Your task to perform on an android device: change alarm snooze length Image 0: 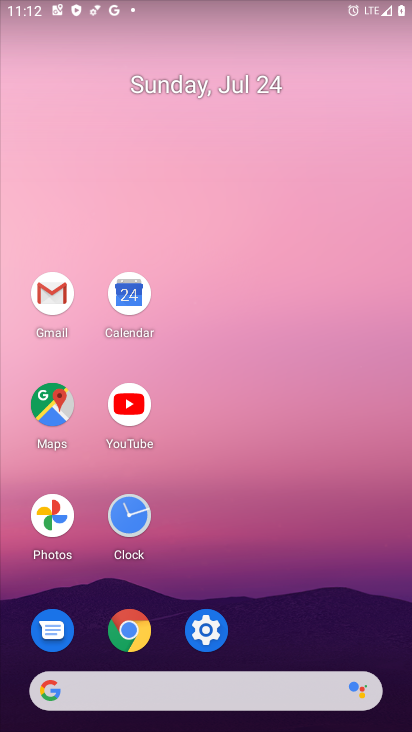
Step 0: click (139, 515)
Your task to perform on an android device: change alarm snooze length Image 1: 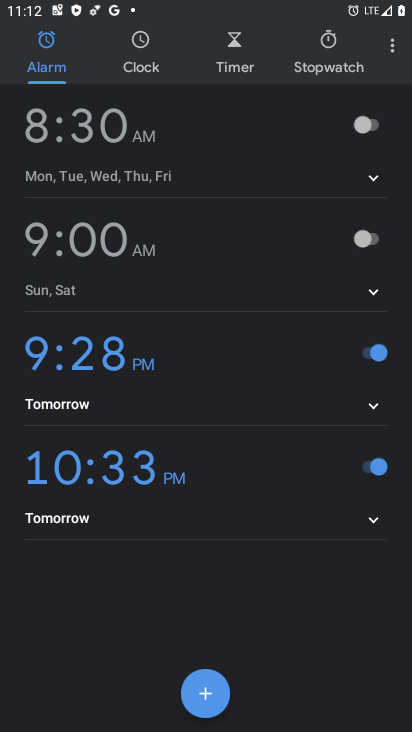
Step 1: click (393, 46)
Your task to perform on an android device: change alarm snooze length Image 2: 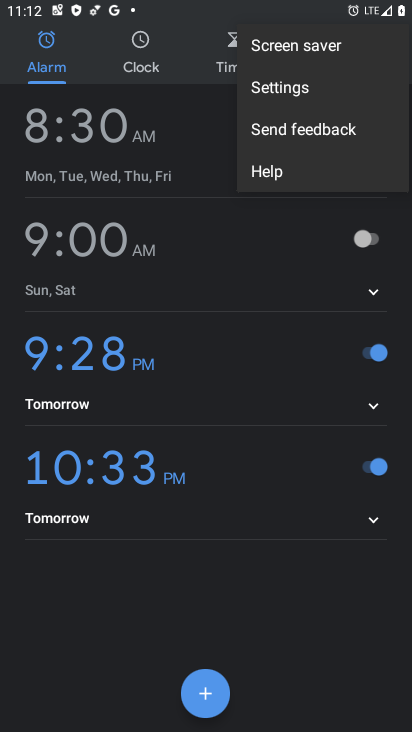
Step 2: click (292, 89)
Your task to perform on an android device: change alarm snooze length Image 3: 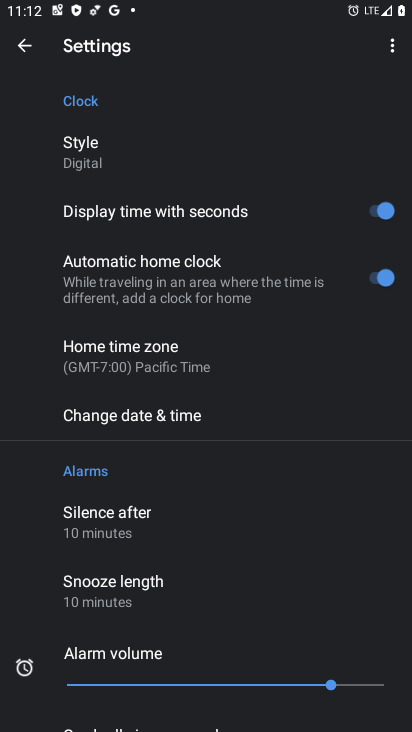
Step 3: drag from (250, 617) to (239, 212)
Your task to perform on an android device: change alarm snooze length Image 4: 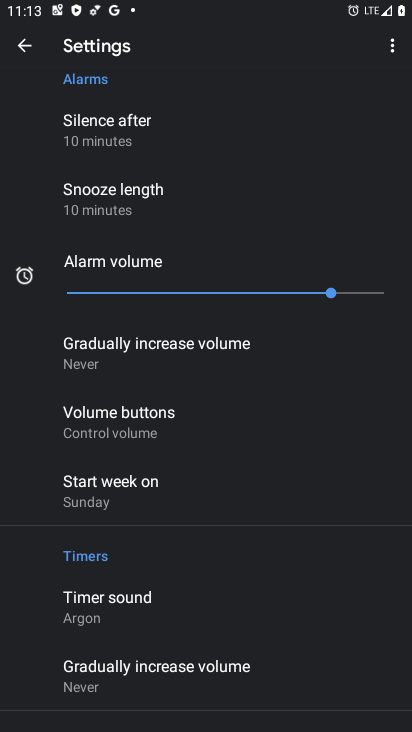
Step 4: drag from (237, 578) to (172, 134)
Your task to perform on an android device: change alarm snooze length Image 5: 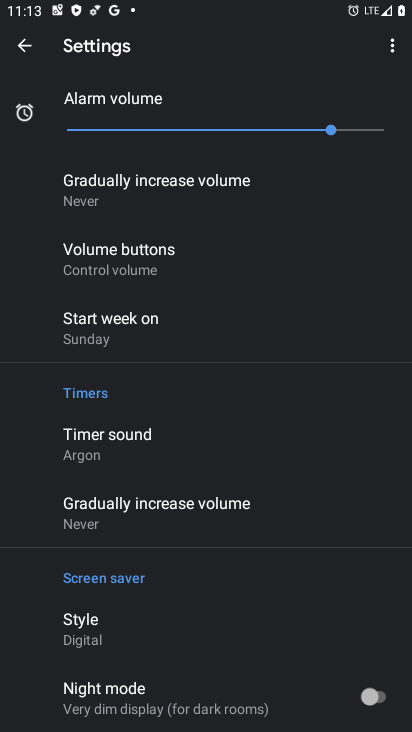
Step 5: drag from (201, 613) to (201, 158)
Your task to perform on an android device: change alarm snooze length Image 6: 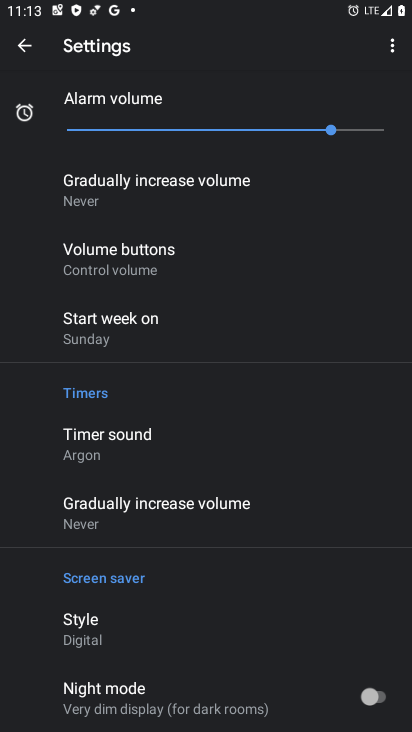
Step 6: drag from (201, 618) to (210, 349)
Your task to perform on an android device: change alarm snooze length Image 7: 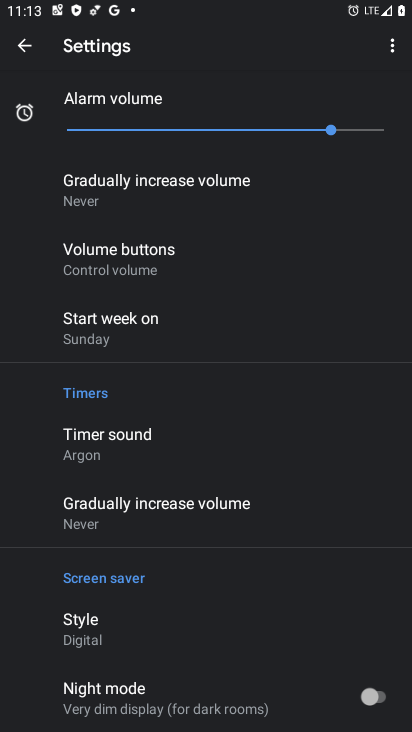
Step 7: drag from (219, 233) to (231, 626)
Your task to perform on an android device: change alarm snooze length Image 8: 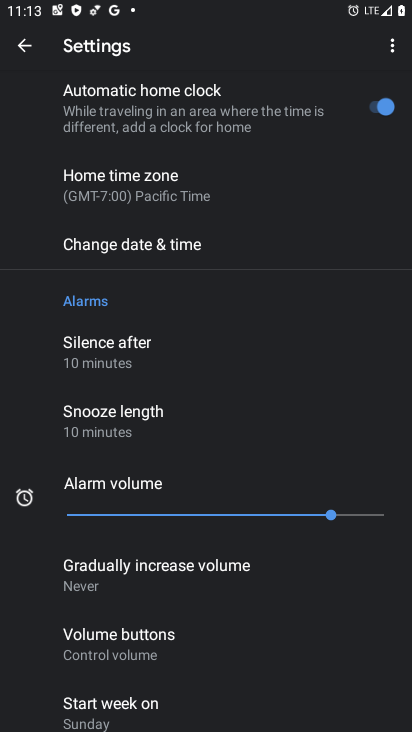
Step 8: click (120, 411)
Your task to perform on an android device: change alarm snooze length Image 9: 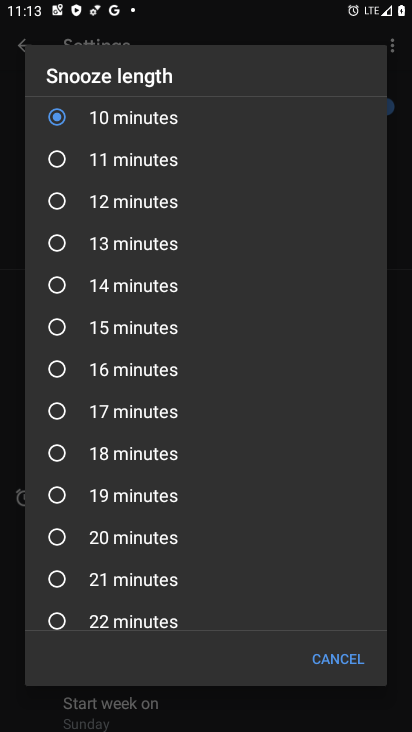
Step 9: click (48, 323)
Your task to perform on an android device: change alarm snooze length Image 10: 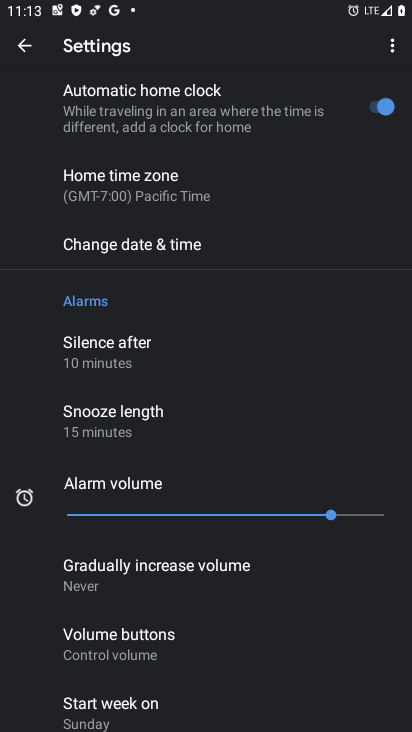
Step 10: task complete